Your task to perform on an android device: Open calendar and show me the first week of next month Image 0: 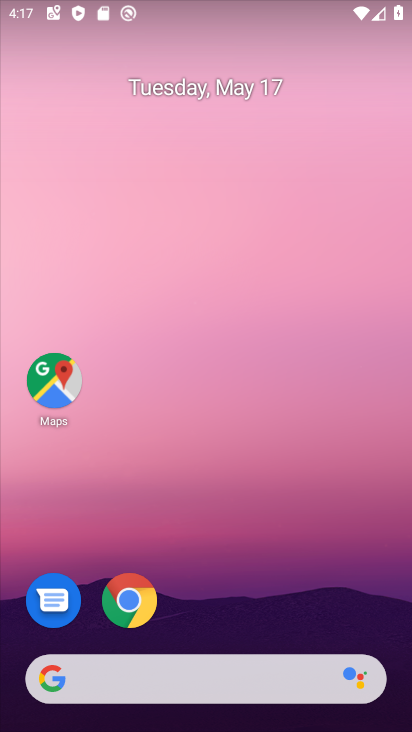
Step 0: drag from (232, 592) to (333, 31)
Your task to perform on an android device: Open calendar and show me the first week of next month Image 1: 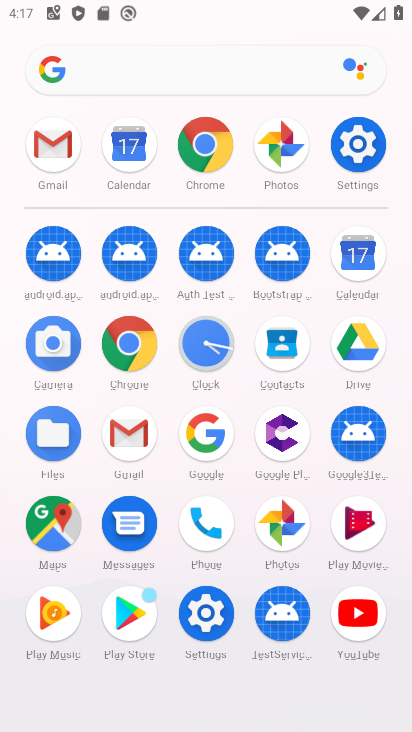
Step 1: click (362, 262)
Your task to perform on an android device: Open calendar and show me the first week of next month Image 2: 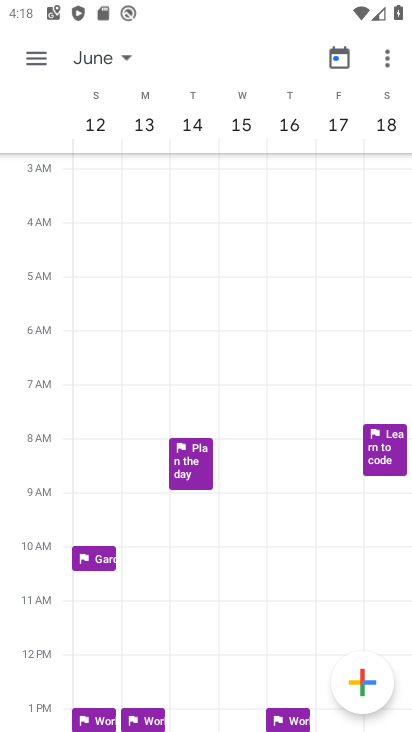
Step 2: task complete